Your task to perform on an android device: Go to battery settings Image 0: 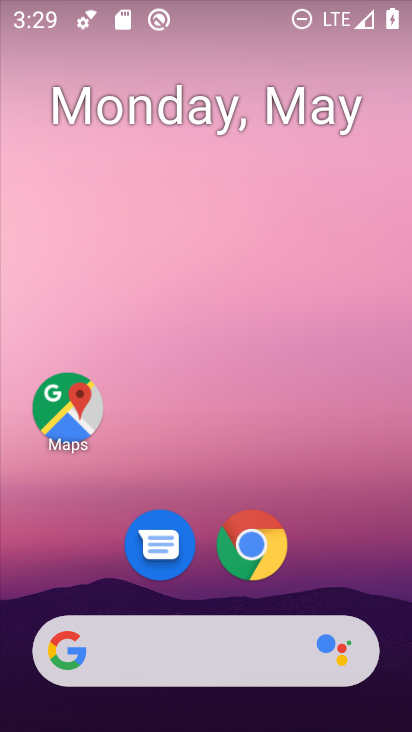
Step 0: drag from (336, 579) to (332, 123)
Your task to perform on an android device: Go to battery settings Image 1: 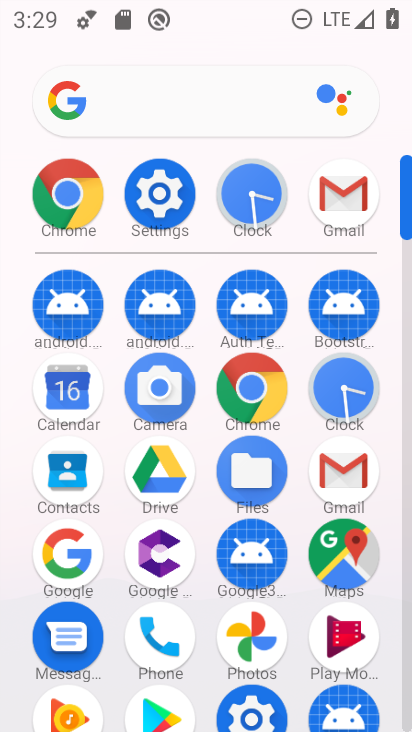
Step 1: click (171, 201)
Your task to perform on an android device: Go to battery settings Image 2: 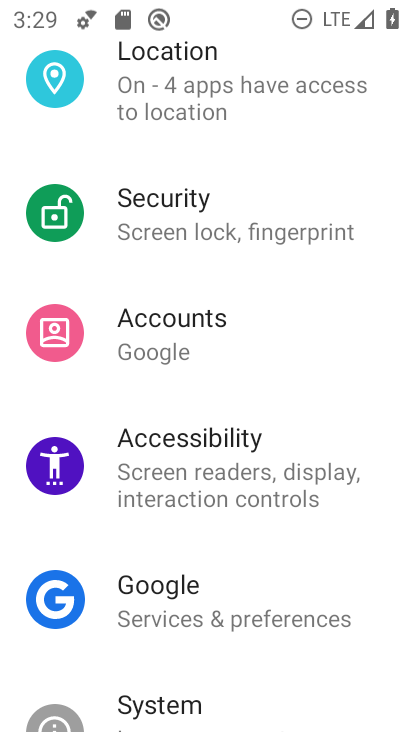
Step 2: drag from (259, 190) to (240, 673)
Your task to perform on an android device: Go to battery settings Image 3: 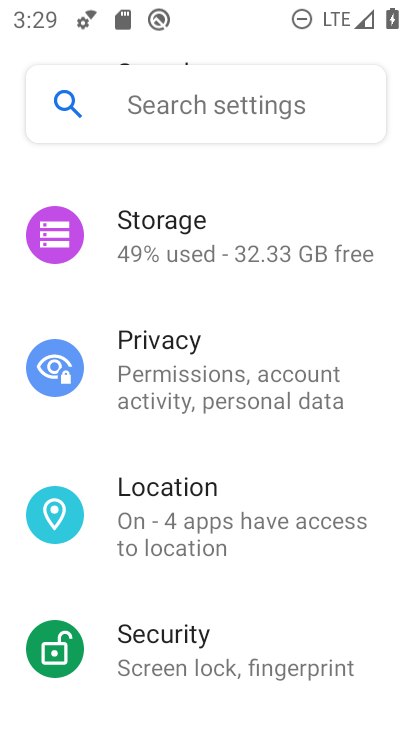
Step 3: drag from (268, 366) to (277, 690)
Your task to perform on an android device: Go to battery settings Image 4: 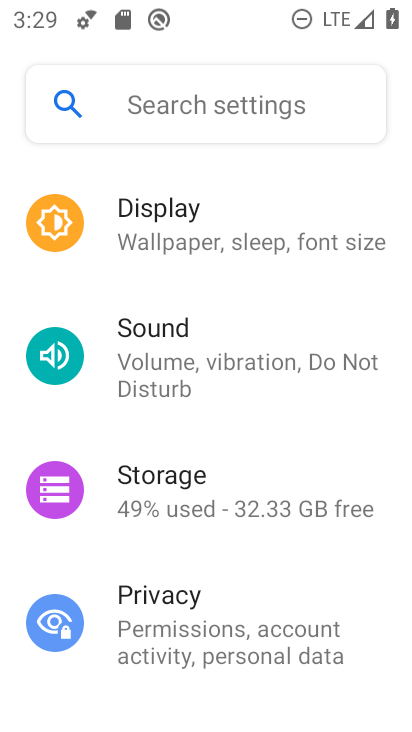
Step 4: drag from (242, 227) to (253, 546)
Your task to perform on an android device: Go to battery settings Image 5: 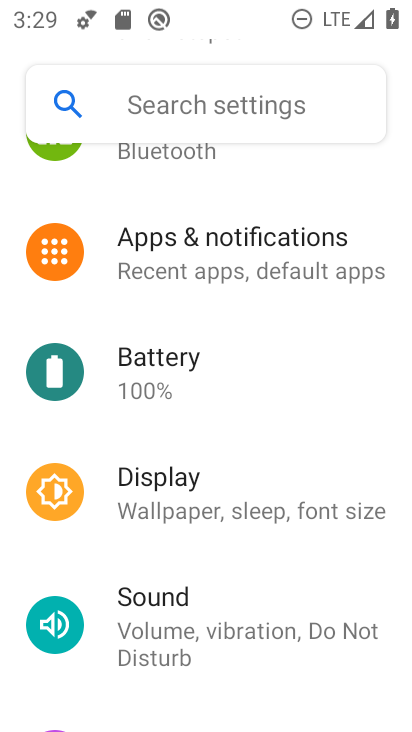
Step 5: click (179, 352)
Your task to perform on an android device: Go to battery settings Image 6: 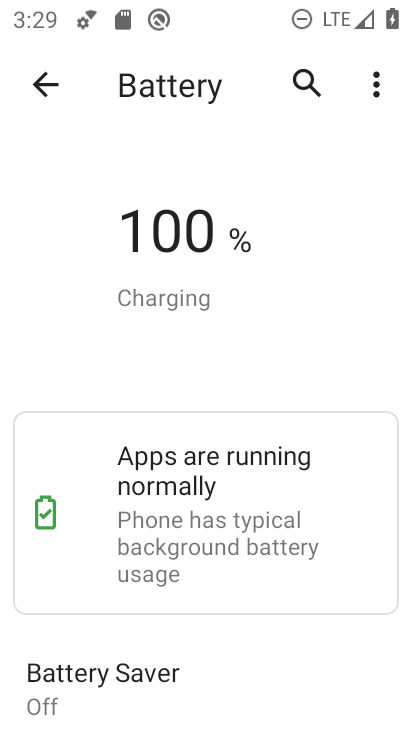
Step 6: task complete